Your task to perform on an android device: empty trash in the gmail app Image 0: 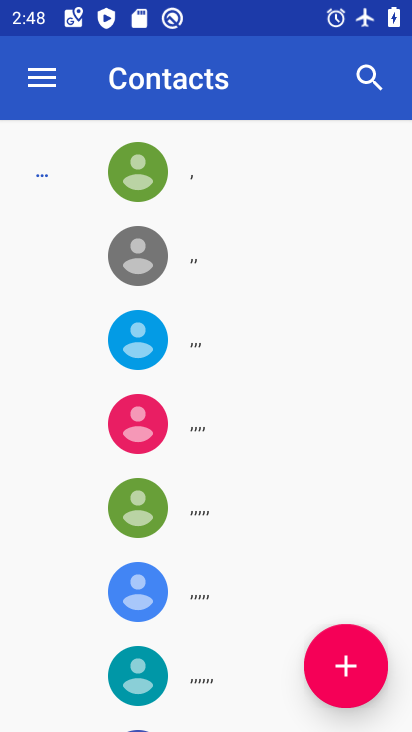
Step 0: press home button
Your task to perform on an android device: empty trash in the gmail app Image 1: 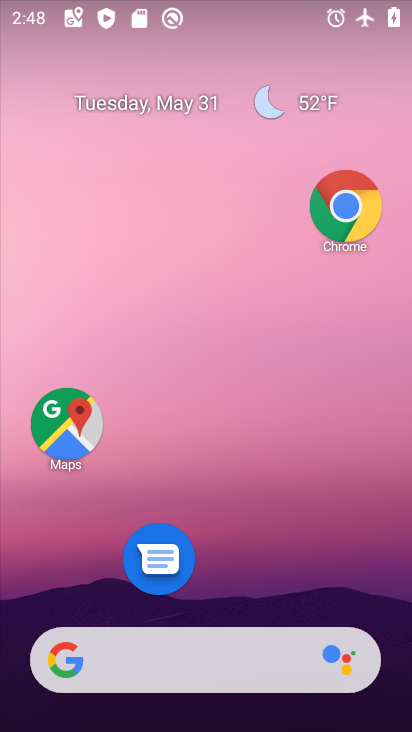
Step 1: drag from (209, 603) to (167, 95)
Your task to perform on an android device: empty trash in the gmail app Image 2: 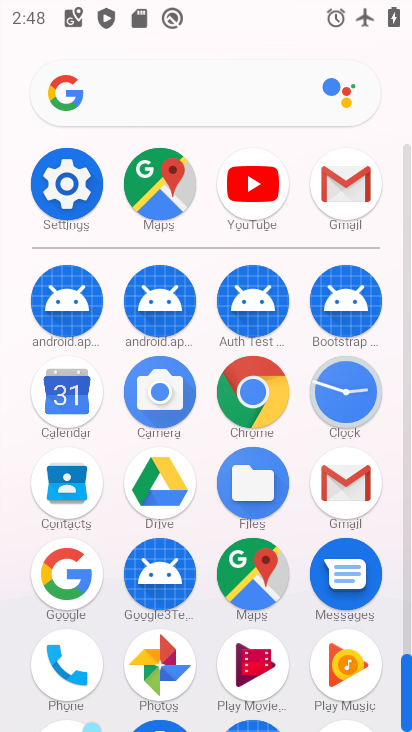
Step 2: click (345, 482)
Your task to perform on an android device: empty trash in the gmail app Image 3: 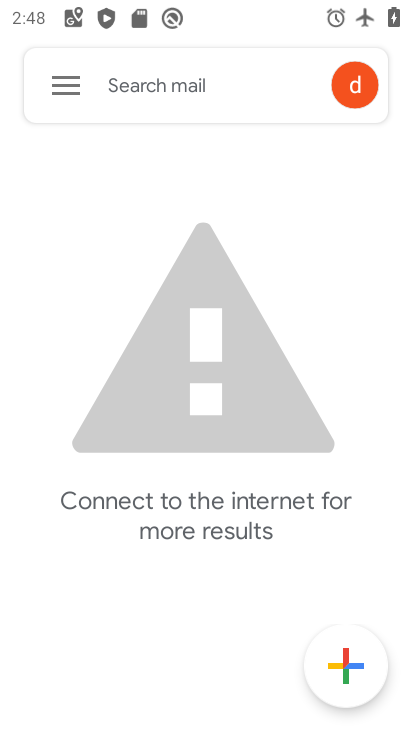
Step 3: click (39, 109)
Your task to perform on an android device: empty trash in the gmail app Image 4: 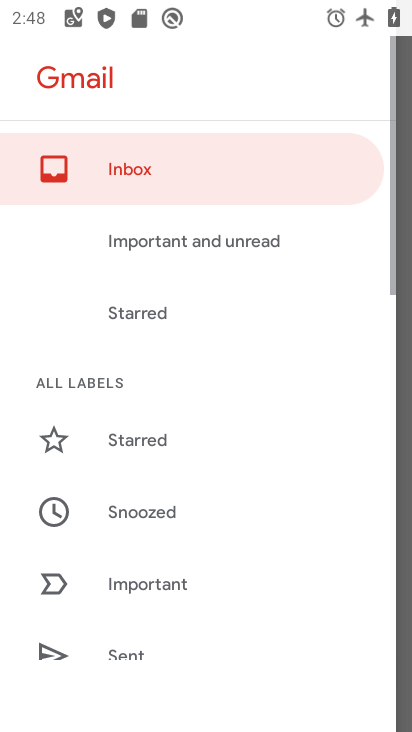
Step 4: drag from (133, 565) to (157, 230)
Your task to perform on an android device: empty trash in the gmail app Image 5: 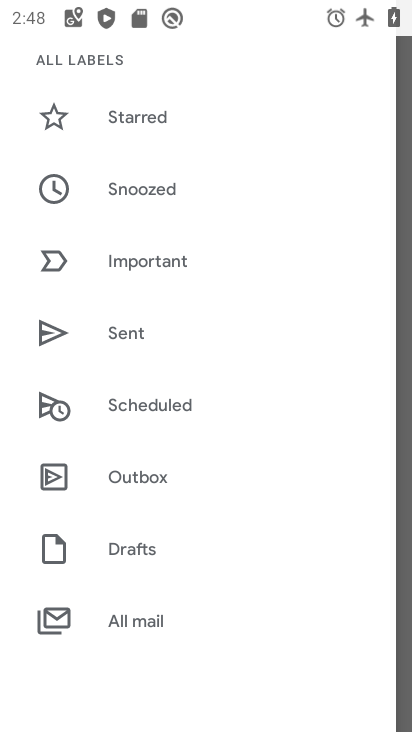
Step 5: drag from (162, 614) to (141, 268)
Your task to perform on an android device: empty trash in the gmail app Image 6: 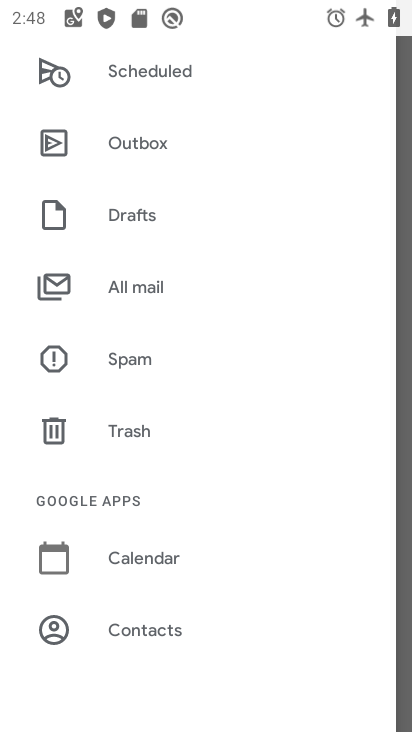
Step 6: click (131, 441)
Your task to perform on an android device: empty trash in the gmail app Image 7: 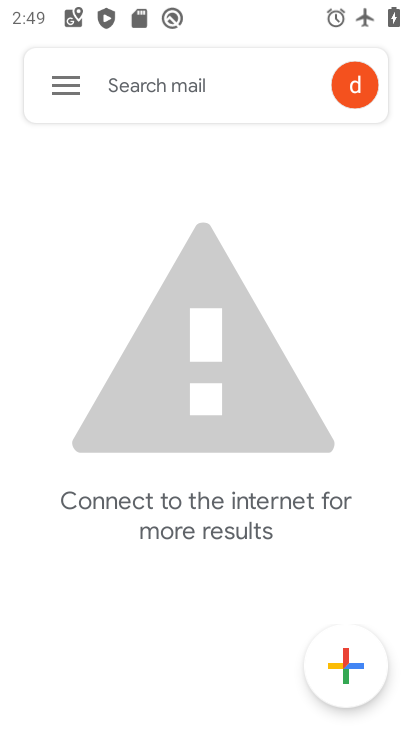
Step 7: click (73, 90)
Your task to perform on an android device: empty trash in the gmail app Image 8: 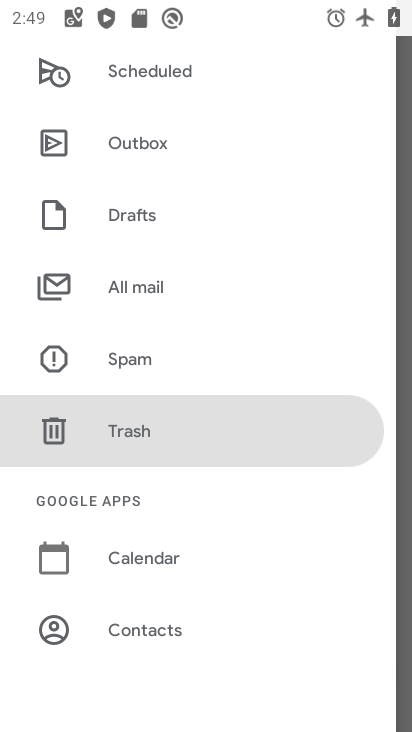
Step 8: task complete